Your task to perform on an android device: What's the weather? Image 0: 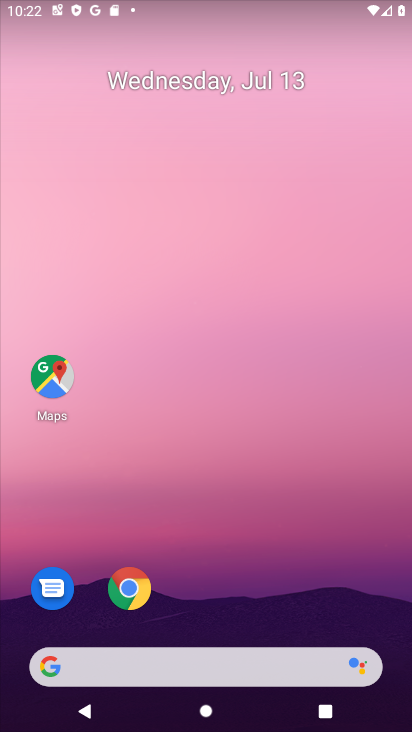
Step 0: drag from (253, 599) to (259, 132)
Your task to perform on an android device: What's the weather? Image 1: 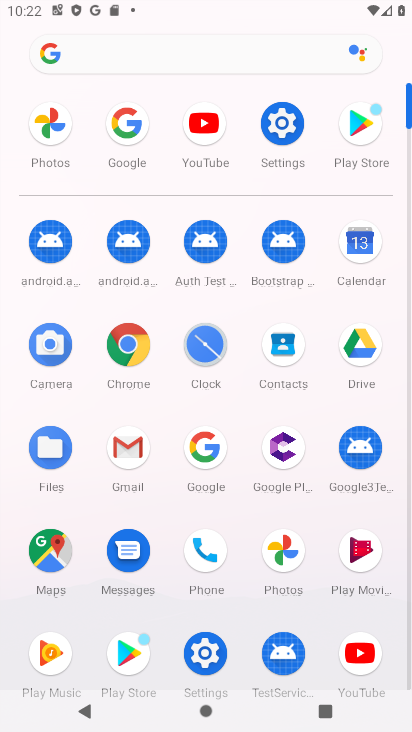
Step 1: click (203, 445)
Your task to perform on an android device: What's the weather? Image 2: 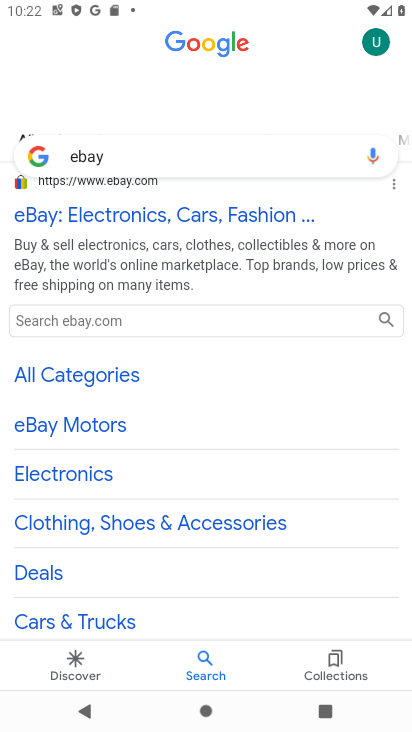
Step 2: click (199, 148)
Your task to perform on an android device: What's the weather? Image 3: 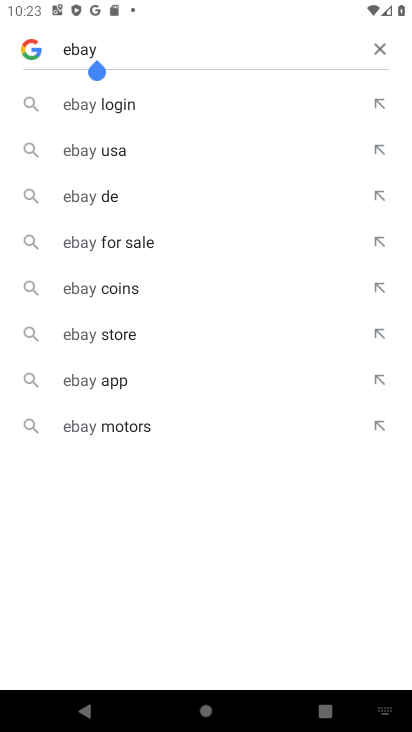
Step 3: click (374, 52)
Your task to perform on an android device: What's the weather? Image 4: 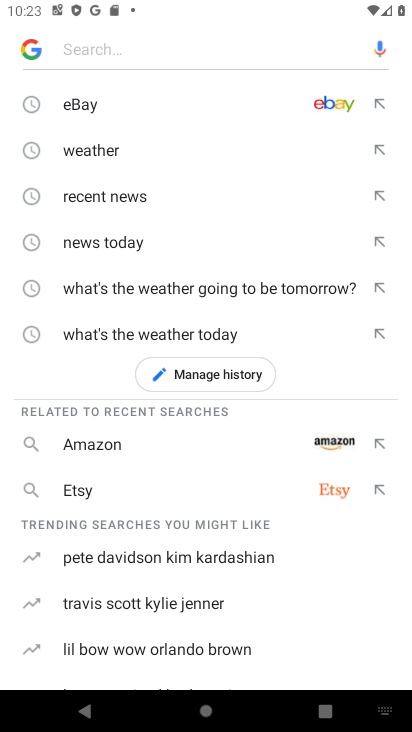
Step 4: type "weather"
Your task to perform on an android device: What's the weather? Image 5: 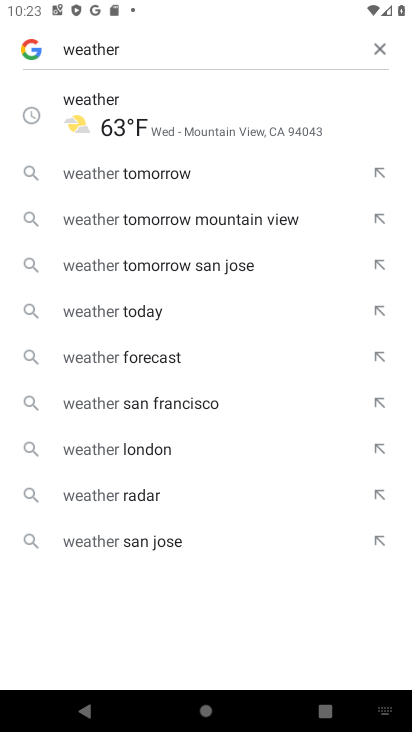
Step 5: click (163, 104)
Your task to perform on an android device: What's the weather? Image 6: 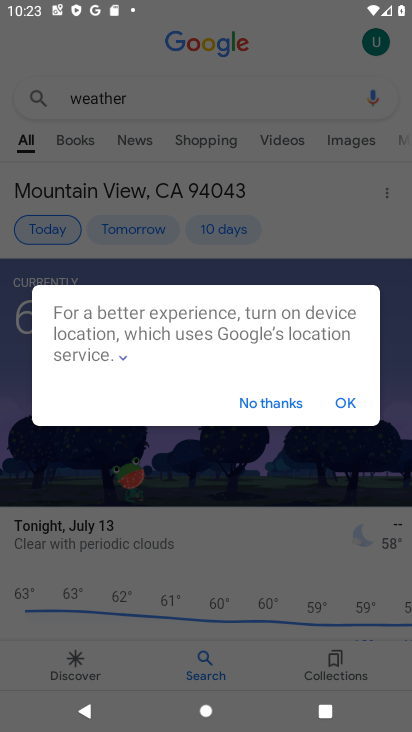
Step 6: click (274, 406)
Your task to perform on an android device: What's the weather? Image 7: 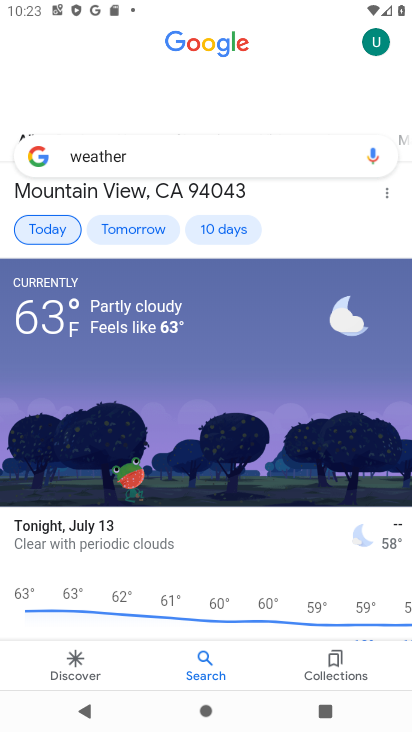
Step 7: task complete